Your task to perform on an android device: turn off location history Image 0: 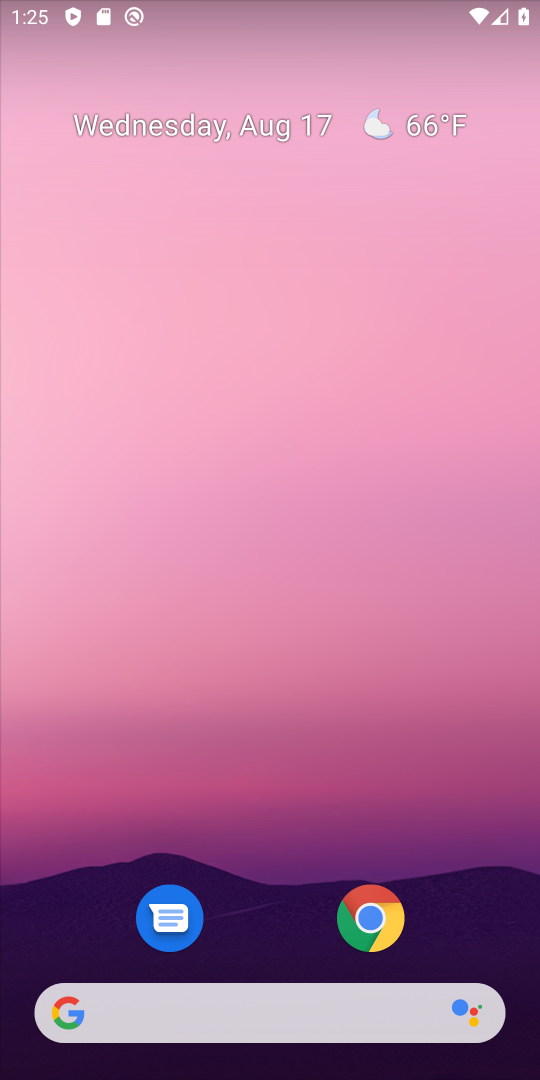
Step 0: drag from (260, 1028) to (309, 129)
Your task to perform on an android device: turn off location history Image 1: 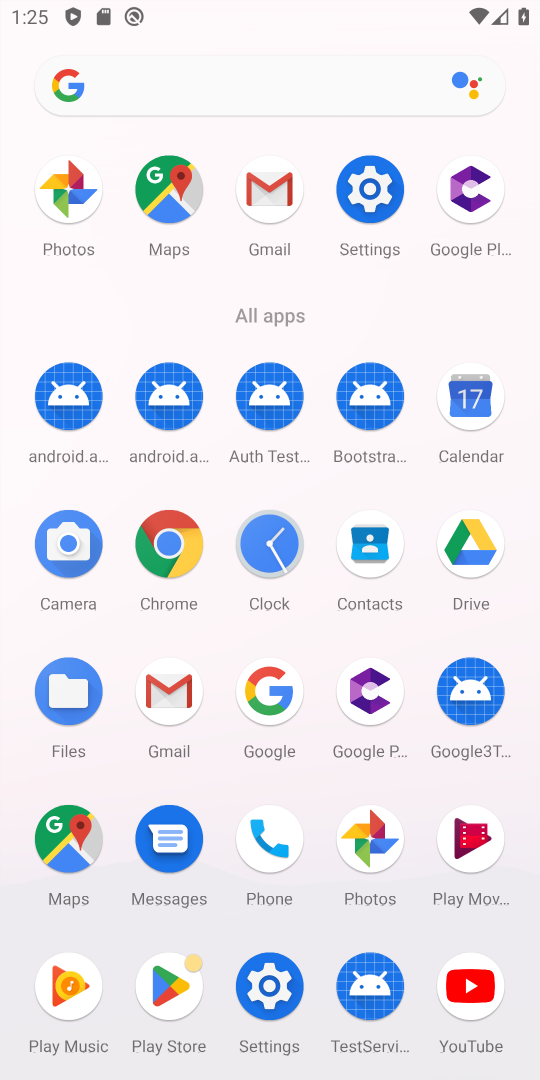
Step 1: click (380, 206)
Your task to perform on an android device: turn off location history Image 2: 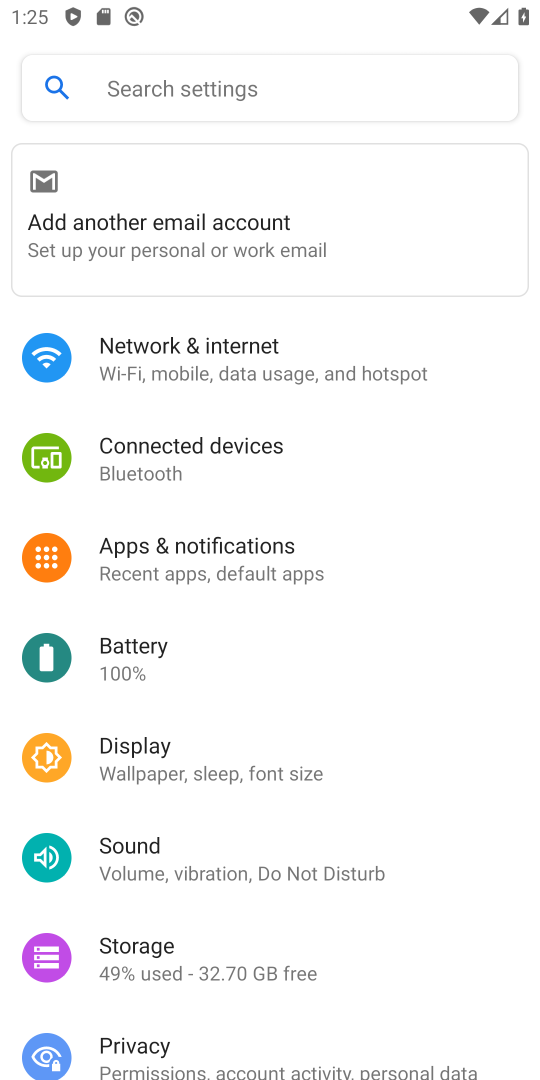
Step 2: drag from (185, 946) to (152, 85)
Your task to perform on an android device: turn off location history Image 3: 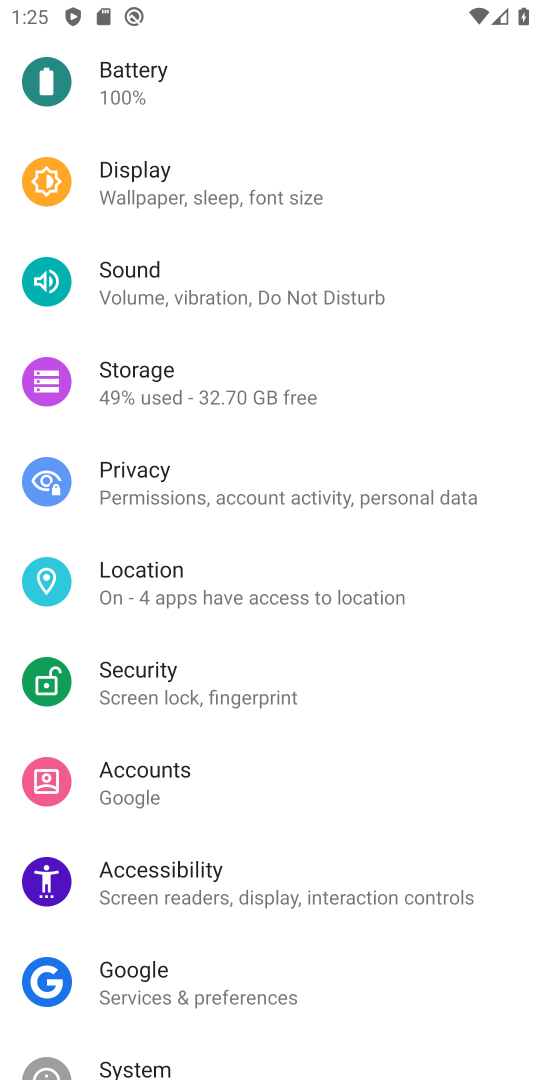
Step 3: click (145, 598)
Your task to perform on an android device: turn off location history Image 4: 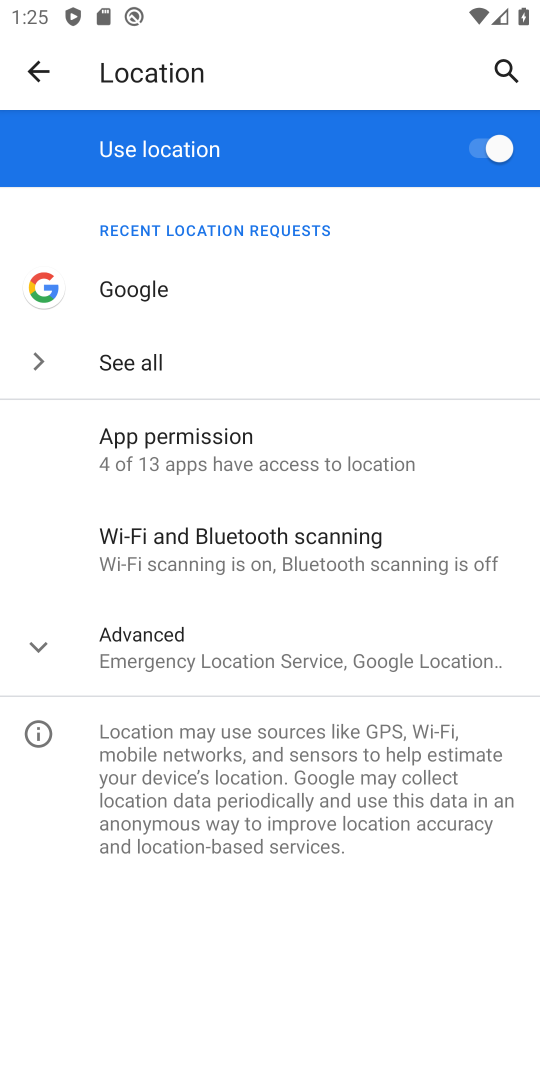
Step 4: click (155, 625)
Your task to perform on an android device: turn off location history Image 5: 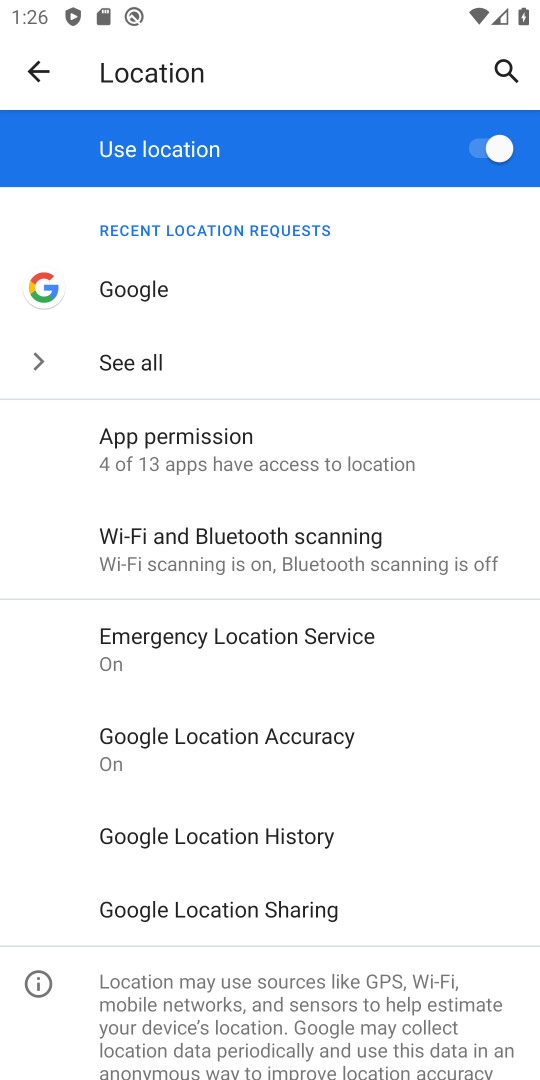
Step 5: click (221, 840)
Your task to perform on an android device: turn off location history Image 6: 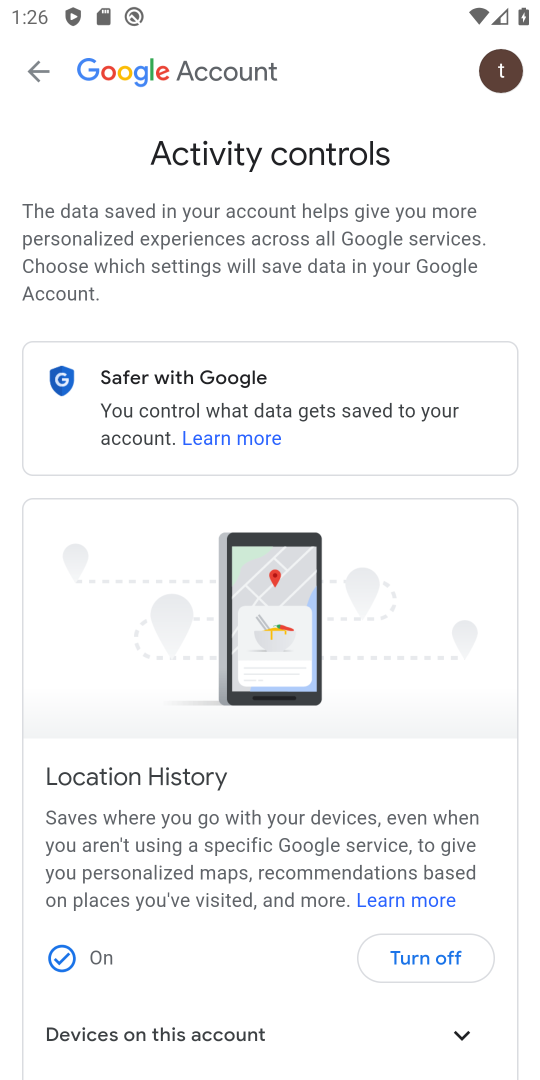
Step 6: click (429, 962)
Your task to perform on an android device: turn off location history Image 7: 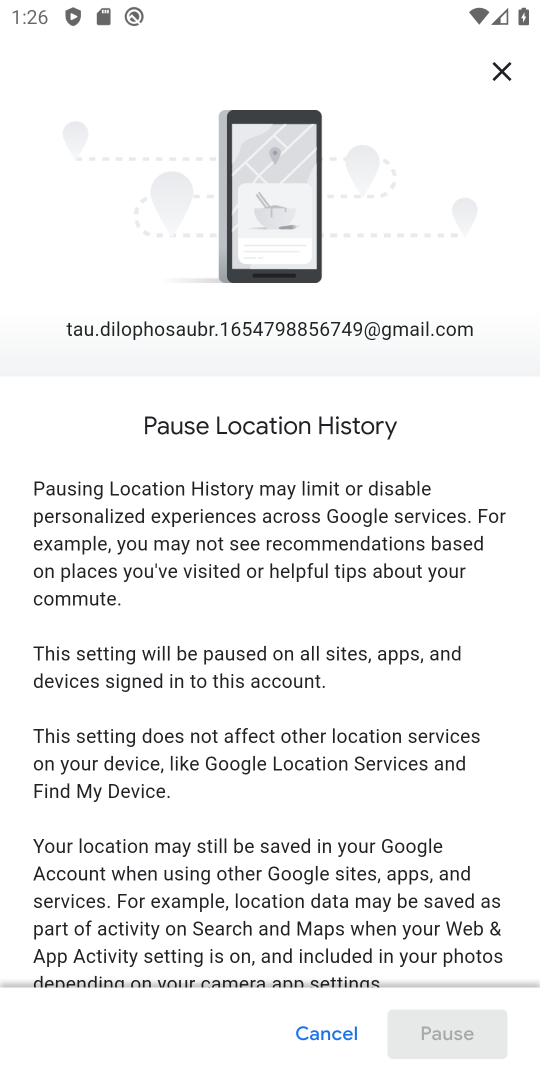
Step 7: drag from (303, 948) to (328, 165)
Your task to perform on an android device: turn off location history Image 8: 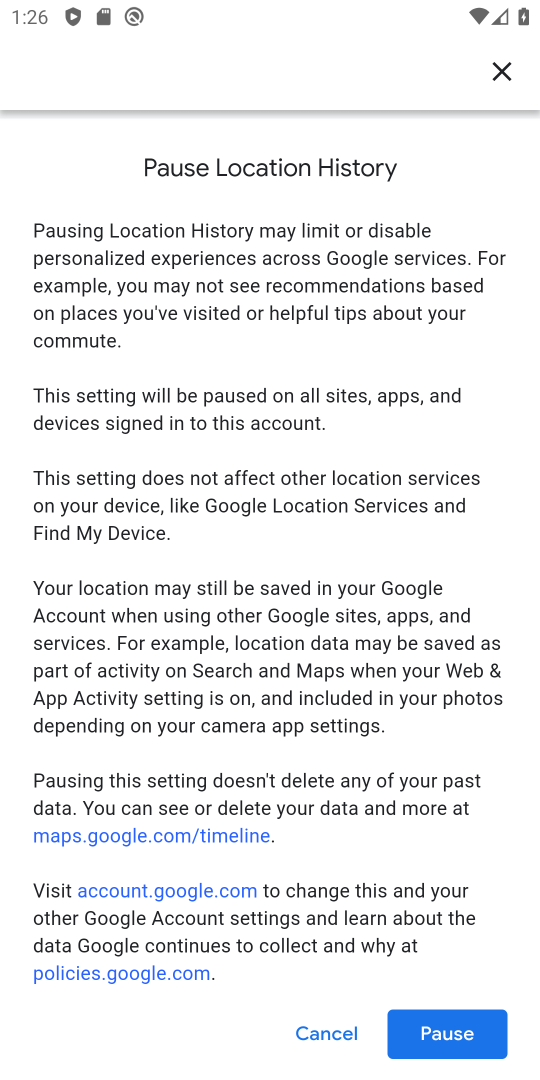
Step 8: click (447, 1038)
Your task to perform on an android device: turn off location history Image 9: 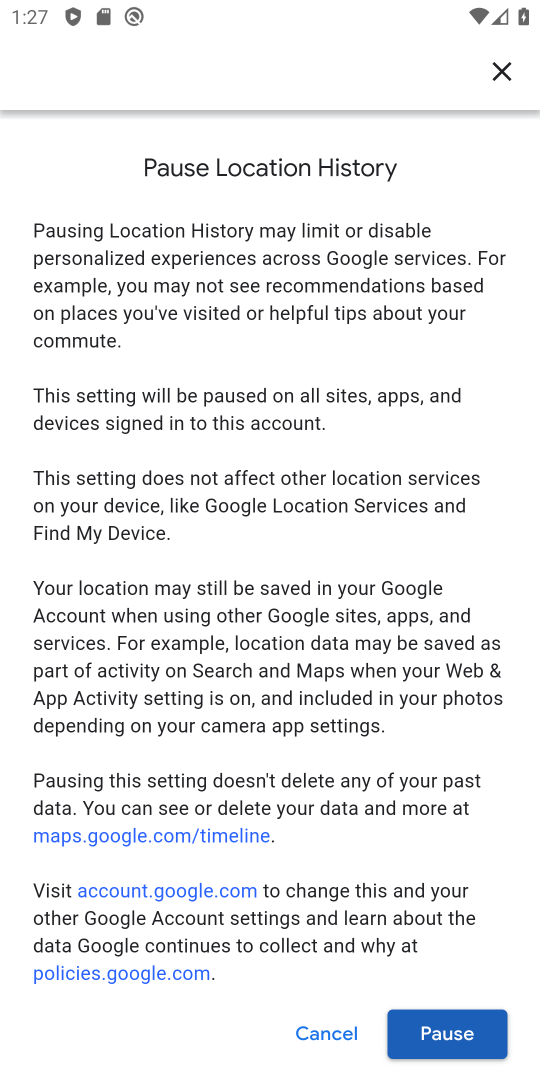
Step 9: click (434, 1039)
Your task to perform on an android device: turn off location history Image 10: 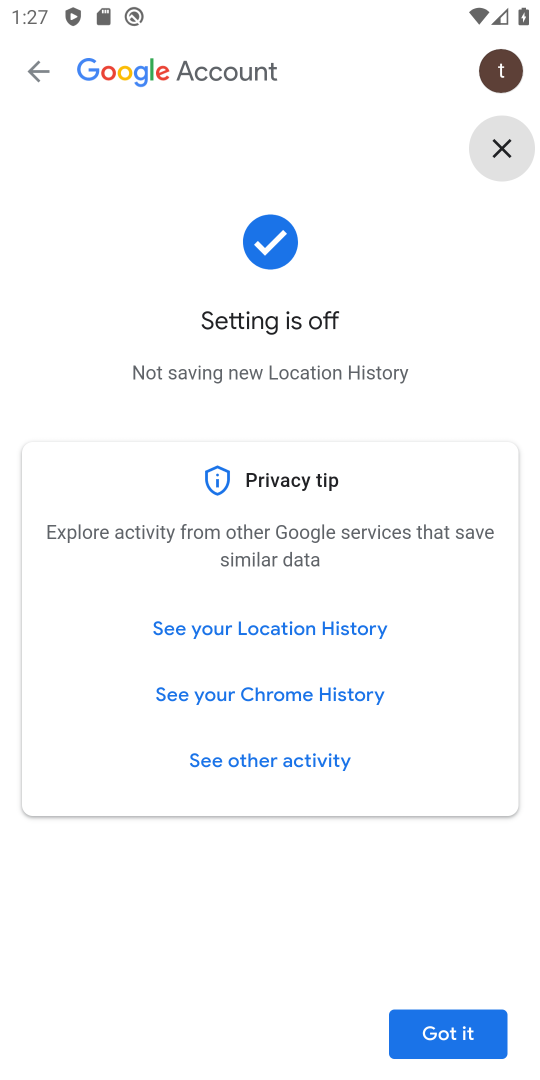
Step 10: click (437, 1049)
Your task to perform on an android device: turn off location history Image 11: 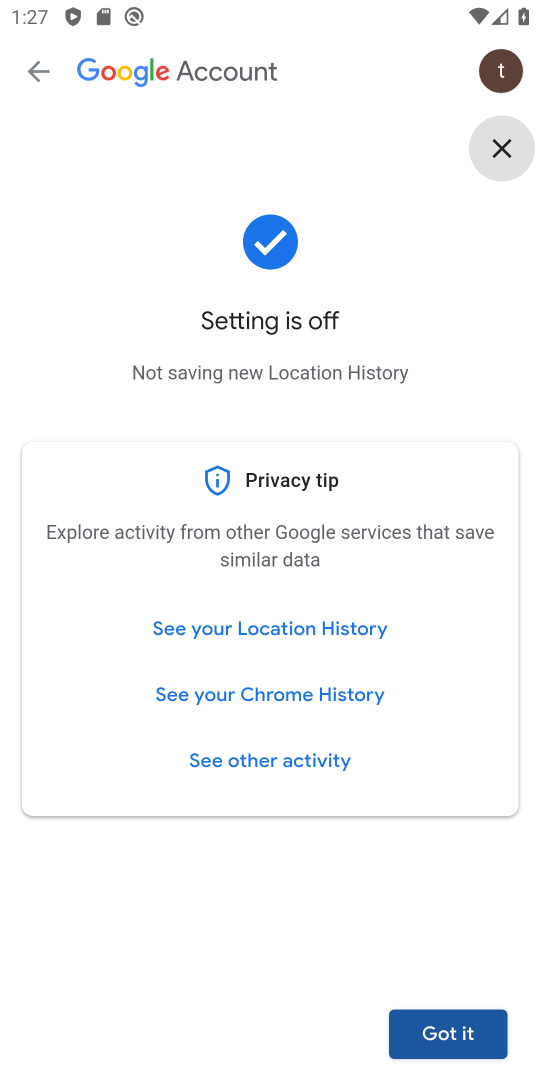
Step 11: task complete